Your task to perform on an android device: Go to sound settings Image 0: 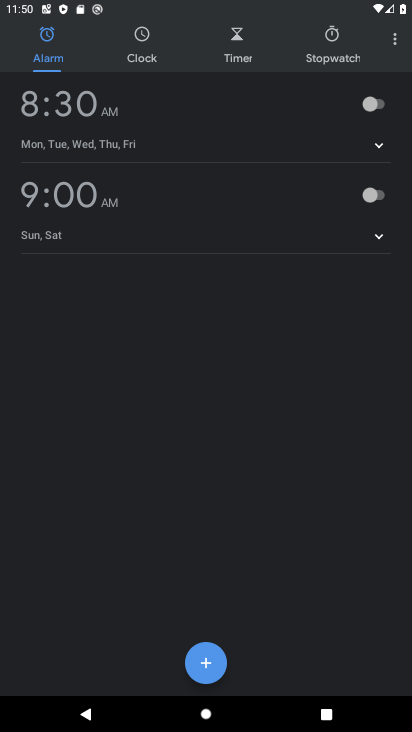
Step 0: click (178, 510)
Your task to perform on an android device: Go to sound settings Image 1: 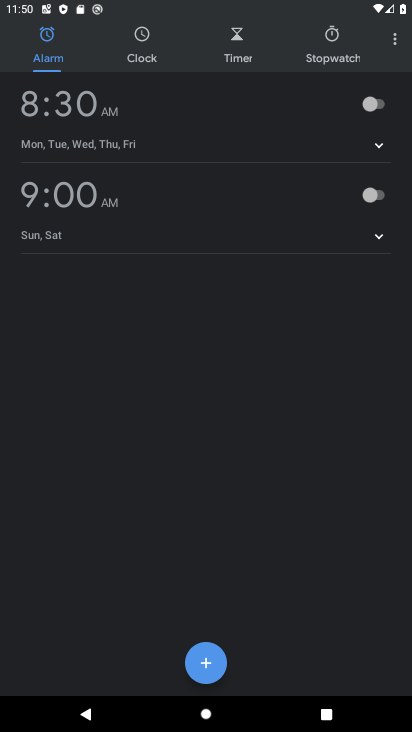
Step 1: drag from (128, 10) to (174, 361)
Your task to perform on an android device: Go to sound settings Image 2: 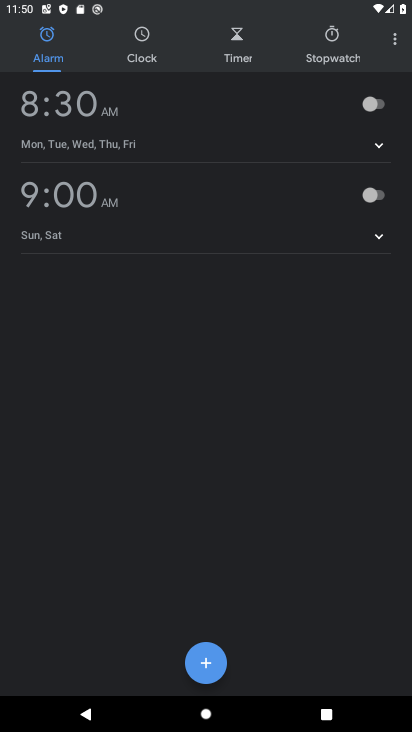
Step 2: drag from (216, 6) to (207, 522)
Your task to perform on an android device: Go to sound settings Image 3: 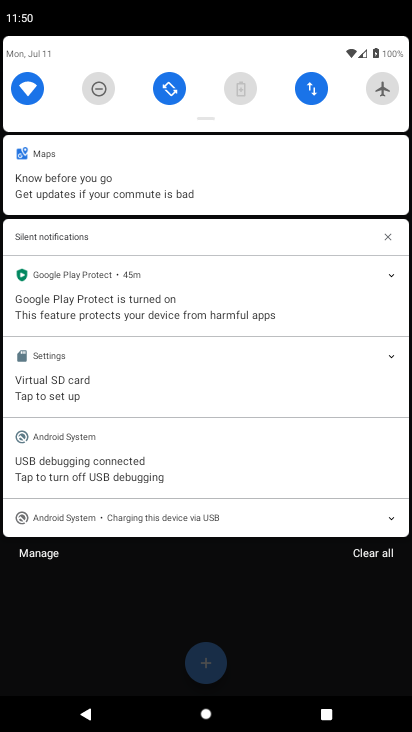
Step 3: drag from (202, 74) to (134, 522)
Your task to perform on an android device: Go to sound settings Image 4: 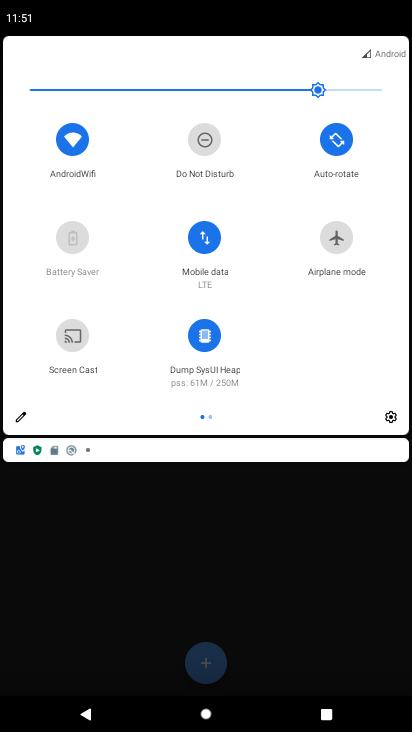
Step 4: click (394, 422)
Your task to perform on an android device: Go to sound settings Image 5: 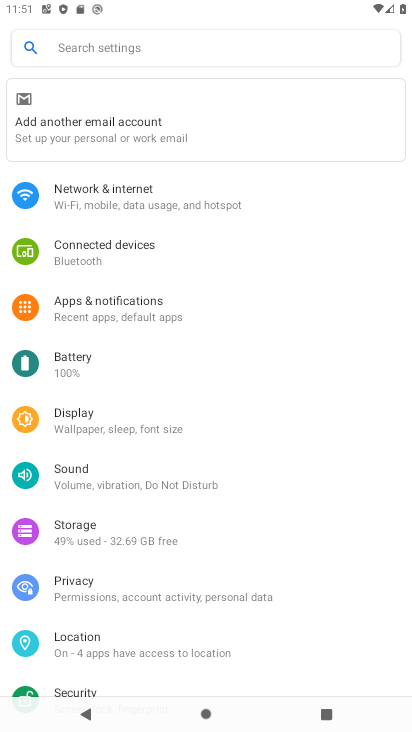
Step 5: click (135, 480)
Your task to perform on an android device: Go to sound settings Image 6: 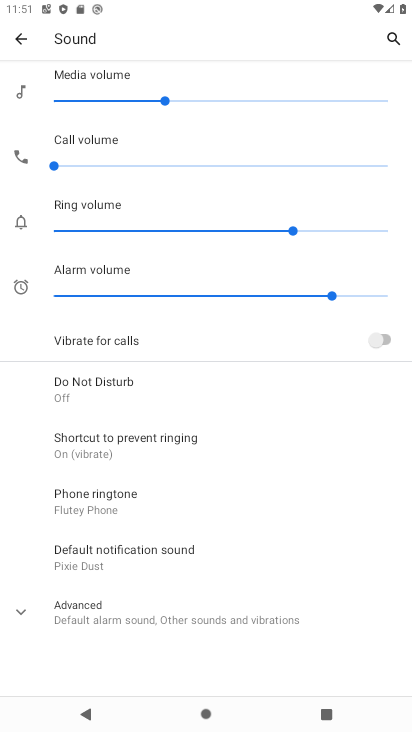
Step 6: task complete